Your task to perform on an android device: change text size in settings app Image 0: 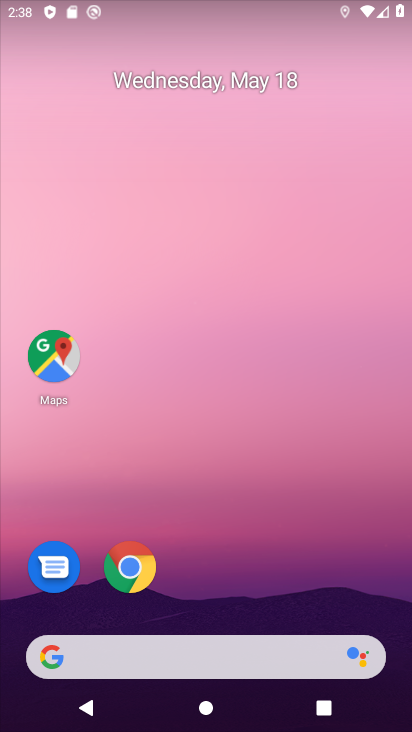
Step 0: drag from (231, 567) to (176, 231)
Your task to perform on an android device: change text size in settings app Image 1: 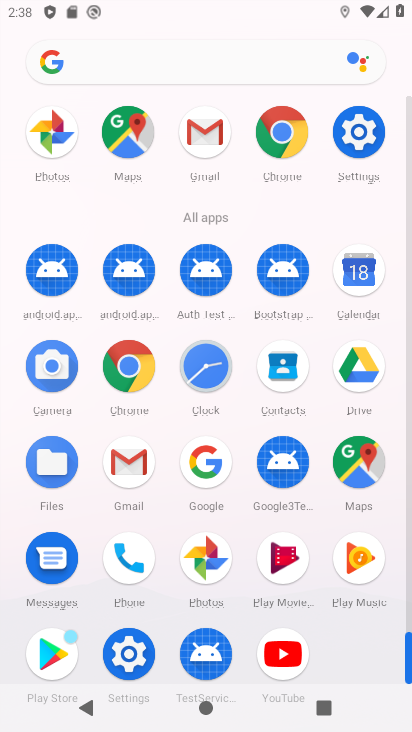
Step 1: click (361, 126)
Your task to perform on an android device: change text size in settings app Image 2: 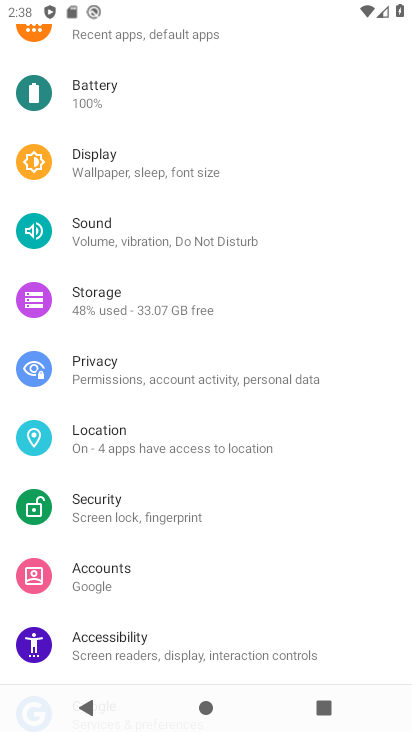
Step 2: click (122, 176)
Your task to perform on an android device: change text size in settings app Image 3: 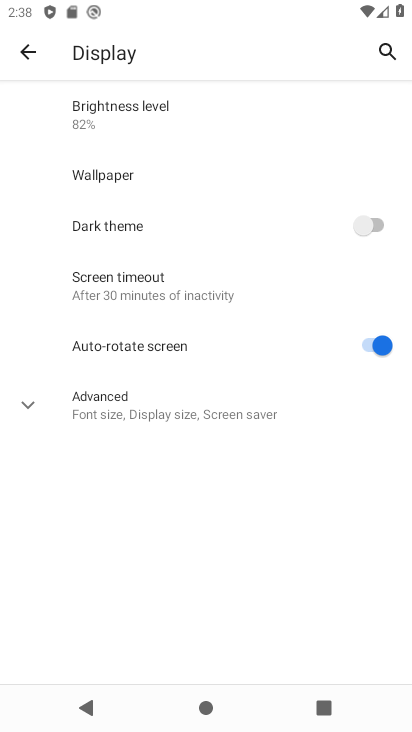
Step 3: click (179, 421)
Your task to perform on an android device: change text size in settings app Image 4: 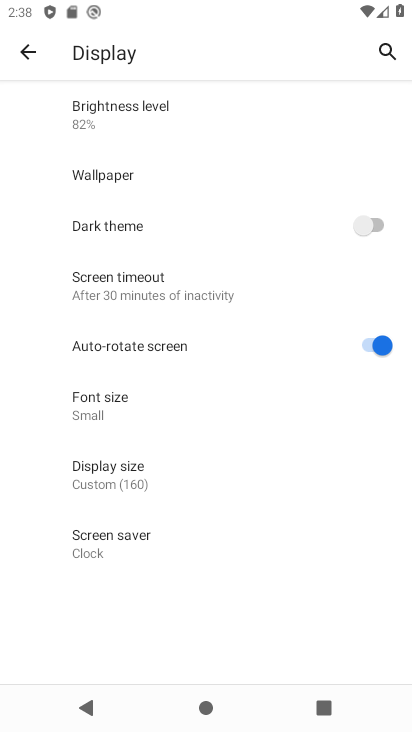
Step 4: click (119, 415)
Your task to perform on an android device: change text size in settings app Image 5: 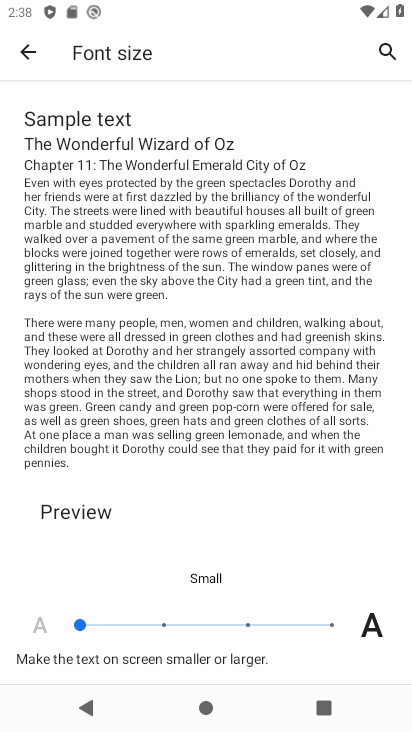
Step 5: click (158, 625)
Your task to perform on an android device: change text size in settings app Image 6: 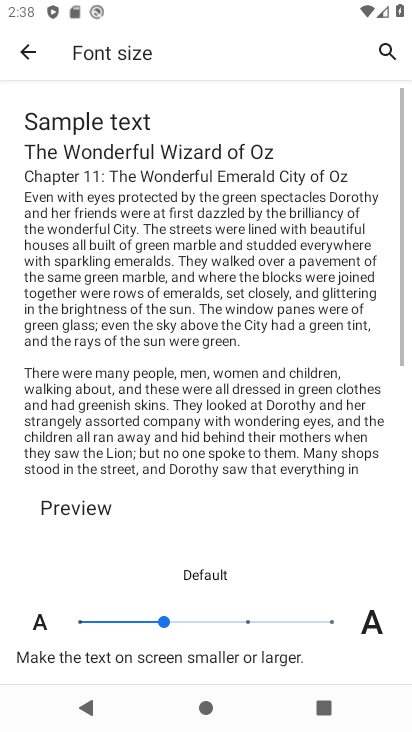
Step 6: task complete